Your task to perform on an android device: turn off improve location accuracy Image 0: 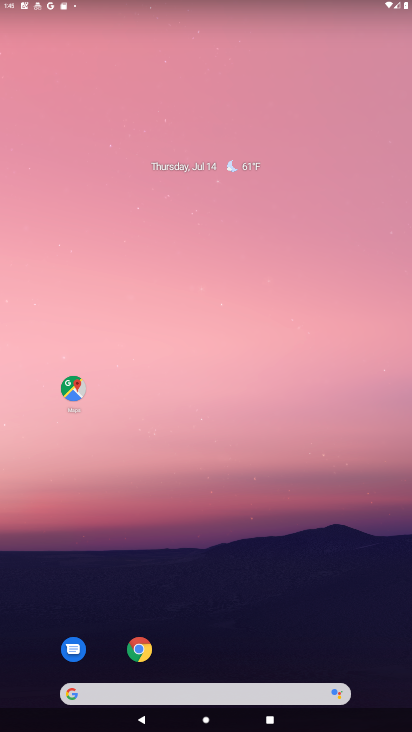
Step 0: drag from (287, 698) to (409, 455)
Your task to perform on an android device: turn off improve location accuracy Image 1: 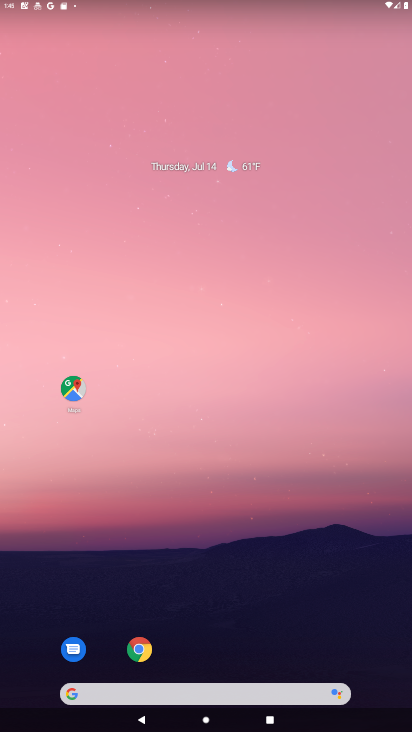
Step 1: drag from (333, 699) to (314, 207)
Your task to perform on an android device: turn off improve location accuracy Image 2: 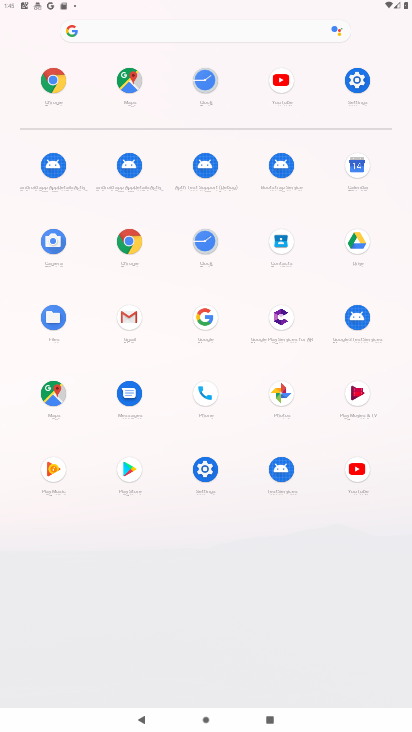
Step 2: click (366, 82)
Your task to perform on an android device: turn off improve location accuracy Image 3: 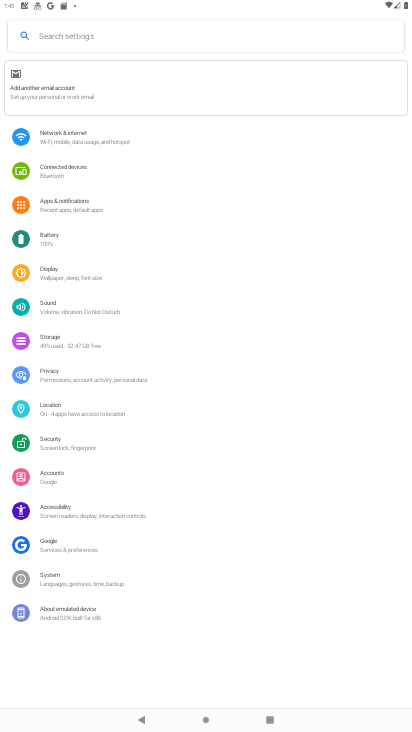
Step 3: click (76, 410)
Your task to perform on an android device: turn off improve location accuracy Image 4: 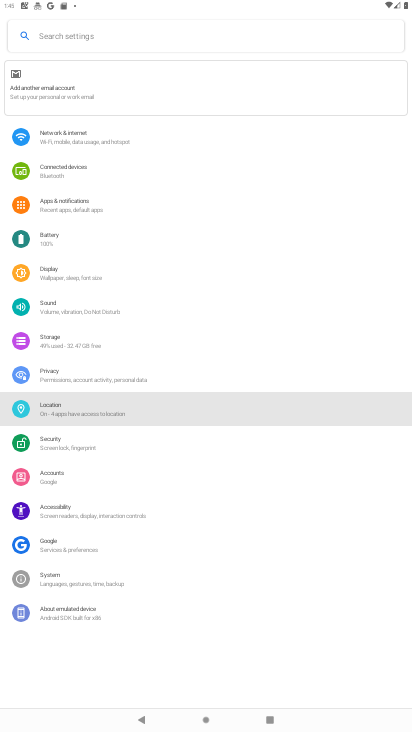
Step 4: click (95, 403)
Your task to perform on an android device: turn off improve location accuracy Image 5: 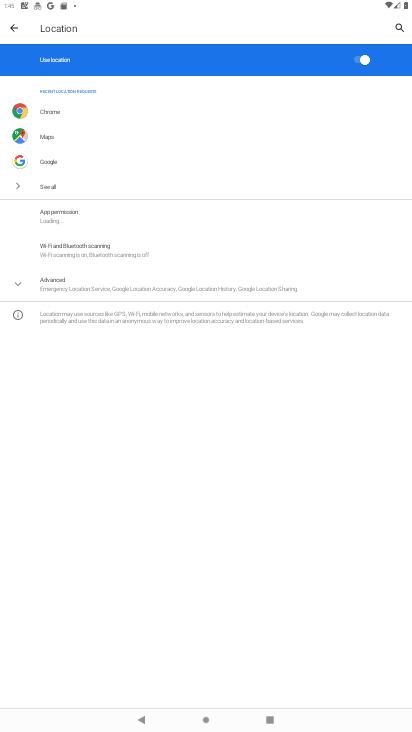
Step 5: click (97, 290)
Your task to perform on an android device: turn off improve location accuracy Image 6: 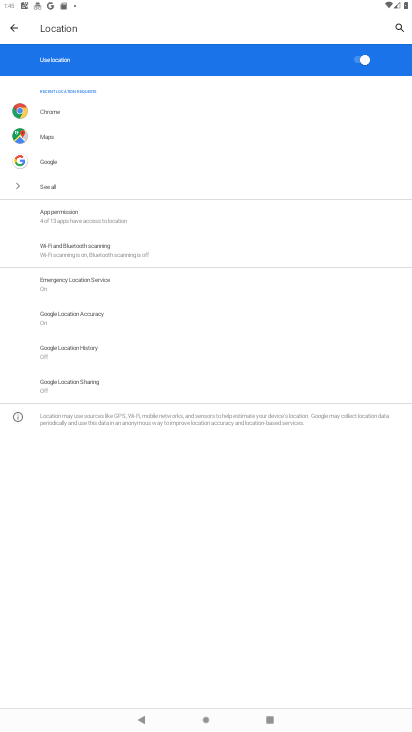
Step 6: click (81, 316)
Your task to perform on an android device: turn off improve location accuracy Image 7: 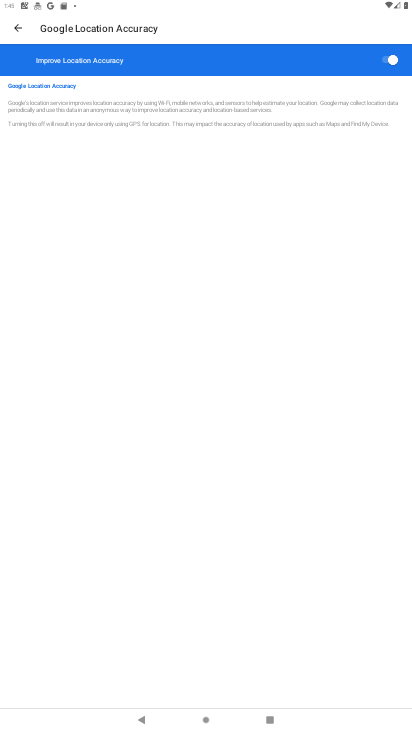
Step 7: click (392, 59)
Your task to perform on an android device: turn off improve location accuracy Image 8: 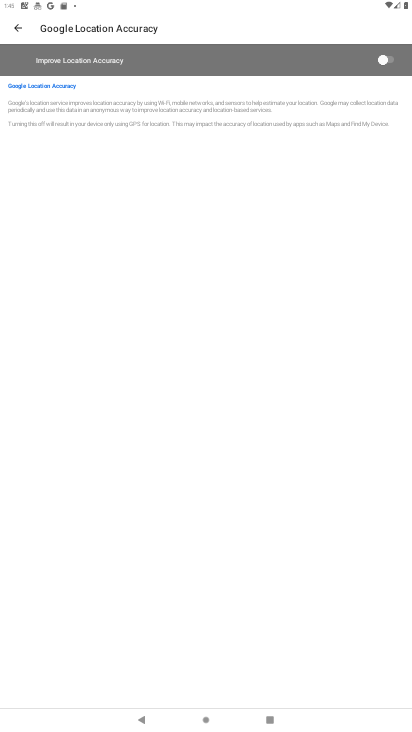
Step 8: task complete